Your task to perform on an android device: Open calendar and show me the first week of next month Image 0: 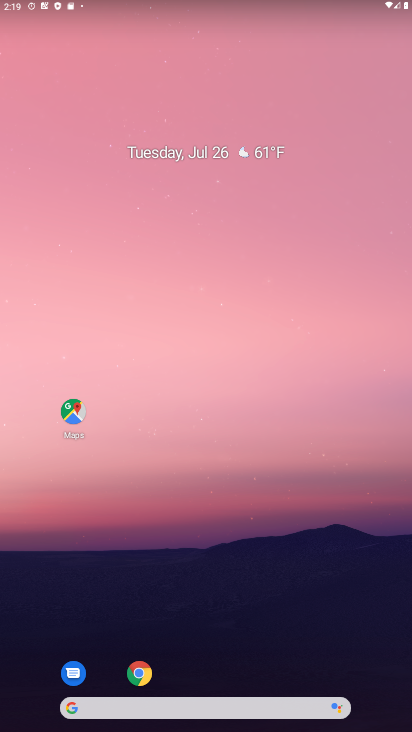
Step 0: drag from (191, 677) to (274, 158)
Your task to perform on an android device: Open calendar and show me the first week of next month Image 1: 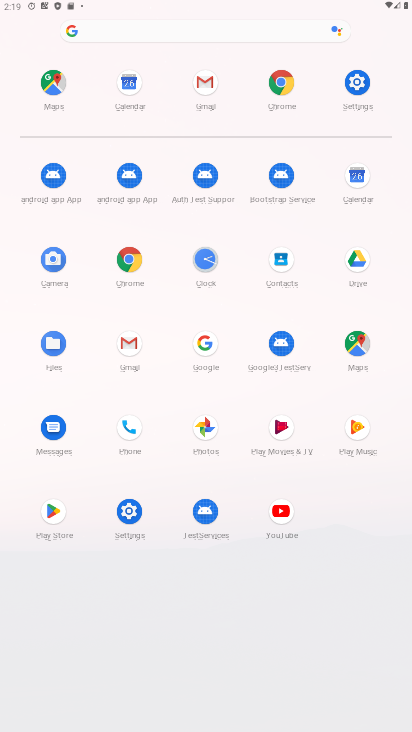
Step 1: click (356, 174)
Your task to perform on an android device: Open calendar and show me the first week of next month Image 2: 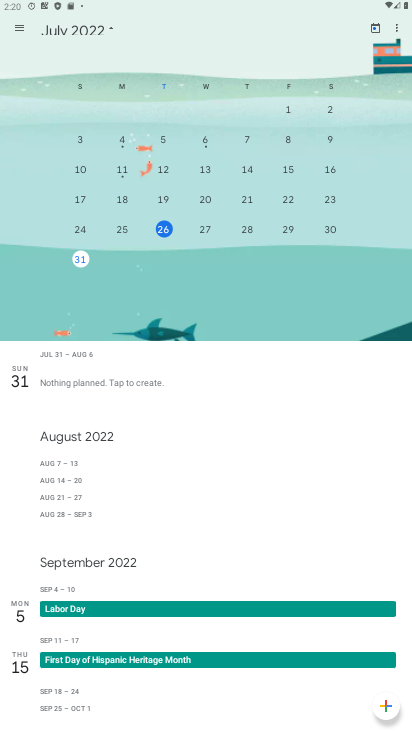
Step 2: drag from (329, 175) to (20, 193)
Your task to perform on an android device: Open calendar and show me the first week of next month Image 3: 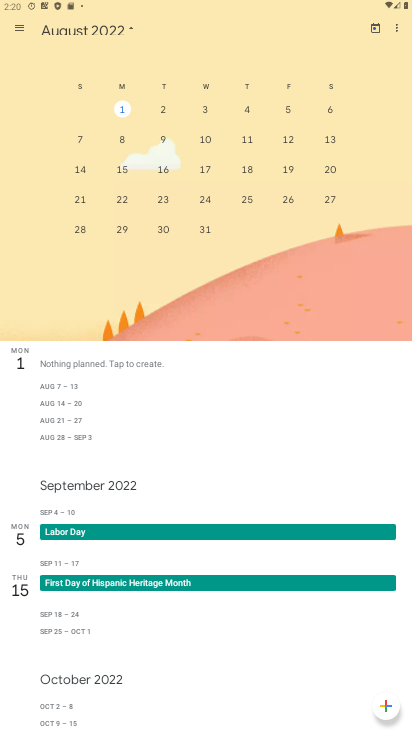
Step 3: click (255, 109)
Your task to perform on an android device: Open calendar and show me the first week of next month Image 4: 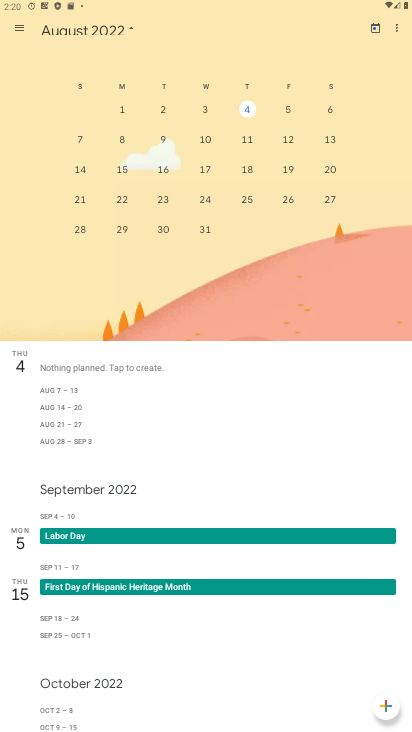
Step 4: click (236, 111)
Your task to perform on an android device: Open calendar and show me the first week of next month Image 5: 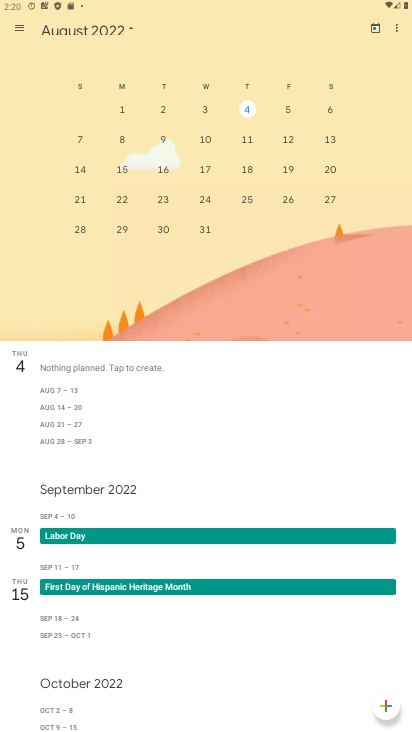
Step 5: click (242, 107)
Your task to perform on an android device: Open calendar and show me the first week of next month Image 6: 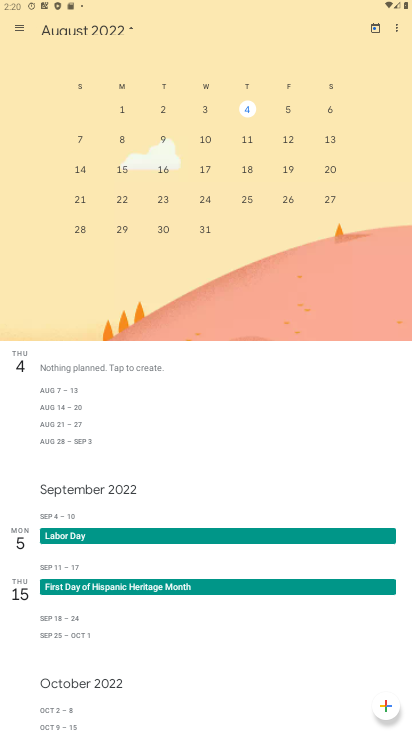
Step 6: task complete